Your task to perform on an android device: Open network settings Image 0: 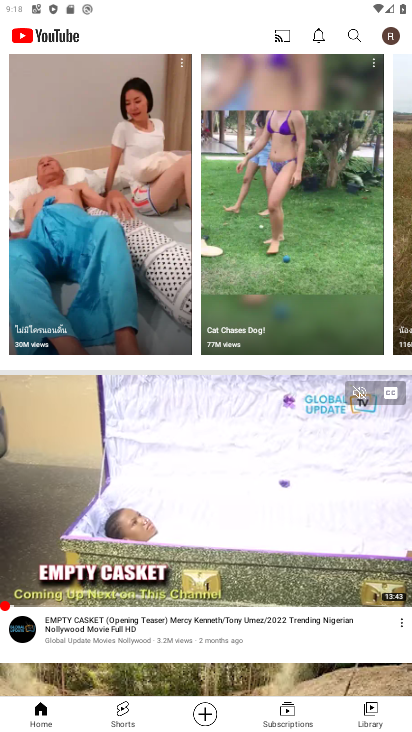
Step 0: press home button
Your task to perform on an android device: Open network settings Image 1: 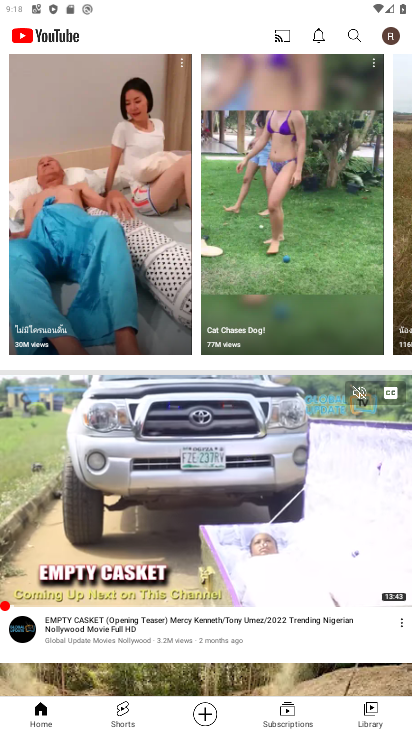
Step 1: press home button
Your task to perform on an android device: Open network settings Image 2: 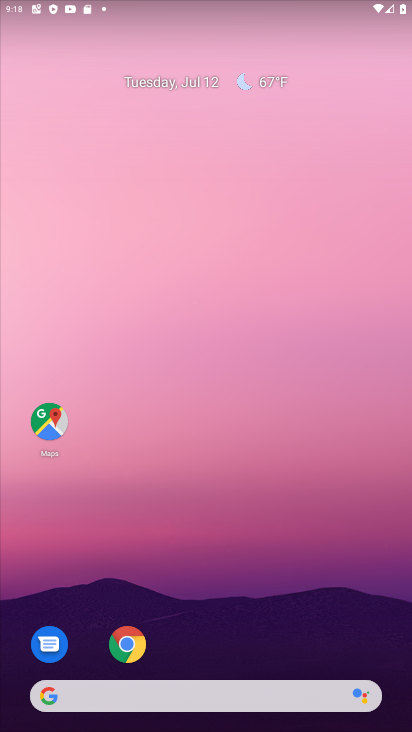
Step 2: drag from (201, 606) to (259, 206)
Your task to perform on an android device: Open network settings Image 3: 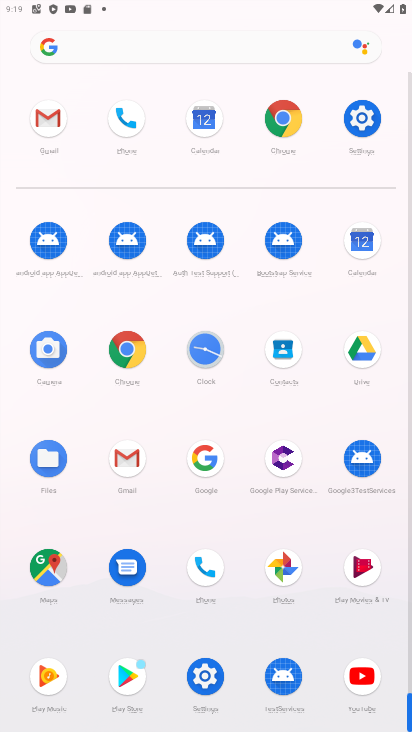
Step 3: drag from (184, 645) to (194, 306)
Your task to perform on an android device: Open network settings Image 4: 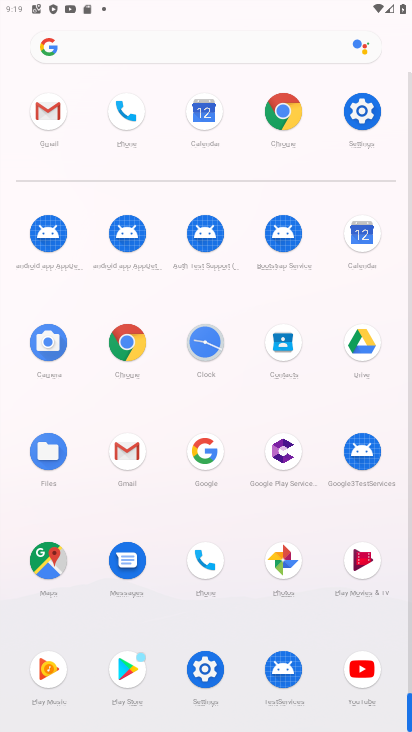
Step 4: click (198, 687)
Your task to perform on an android device: Open network settings Image 5: 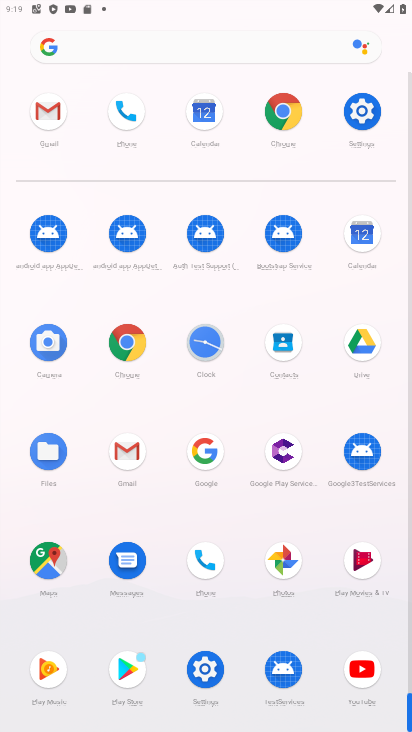
Step 5: click (198, 687)
Your task to perform on an android device: Open network settings Image 6: 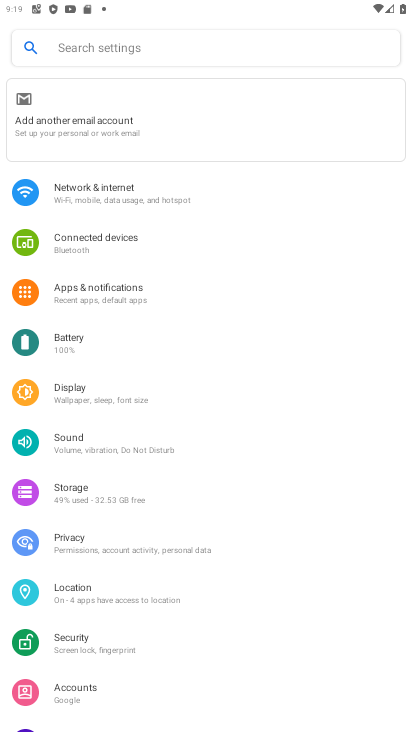
Step 6: click (141, 201)
Your task to perform on an android device: Open network settings Image 7: 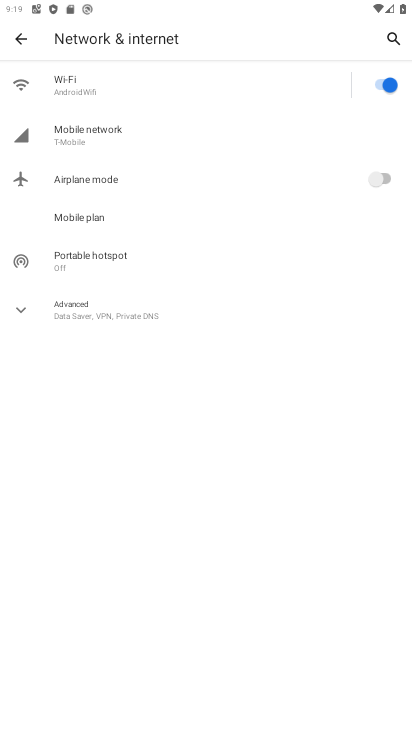
Step 7: task complete